Your task to perform on an android device: What's on my calendar today? Image 0: 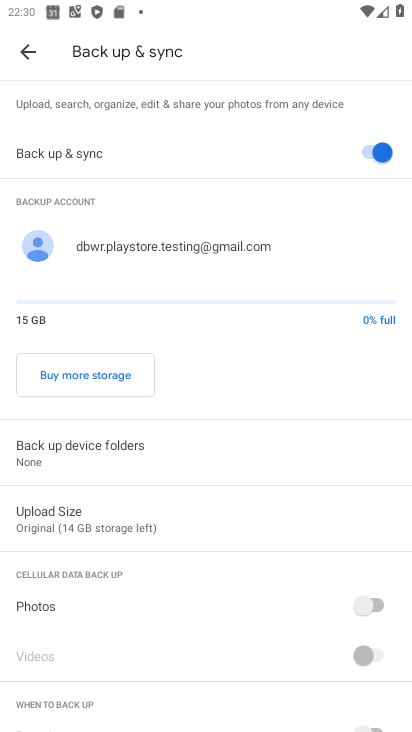
Step 0: press home button
Your task to perform on an android device: What's on my calendar today? Image 1: 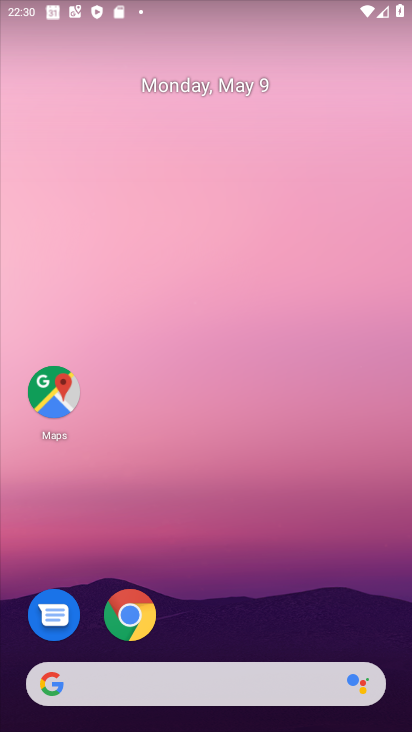
Step 1: drag from (221, 648) to (216, 207)
Your task to perform on an android device: What's on my calendar today? Image 2: 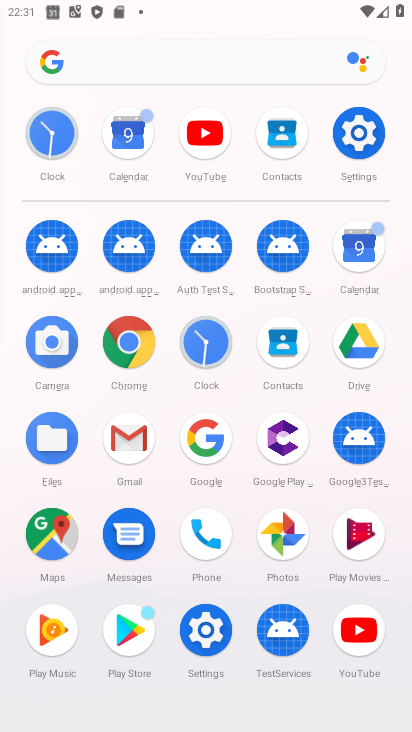
Step 2: click (355, 253)
Your task to perform on an android device: What's on my calendar today? Image 3: 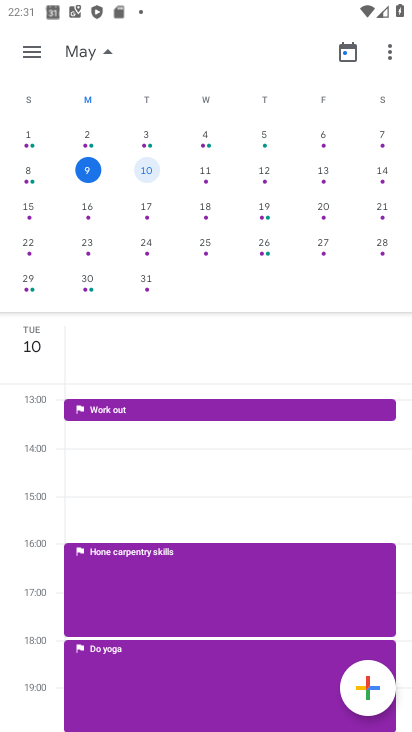
Step 3: task complete